Your task to perform on an android device: Open Chrome and go to settings Image 0: 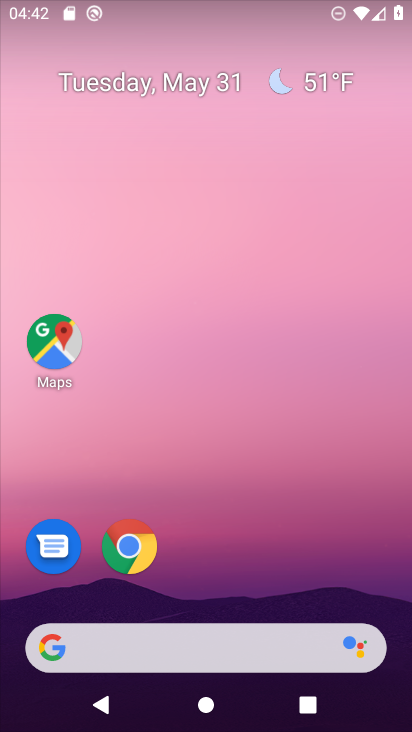
Step 0: click (129, 551)
Your task to perform on an android device: Open Chrome and go to settings Image 1: 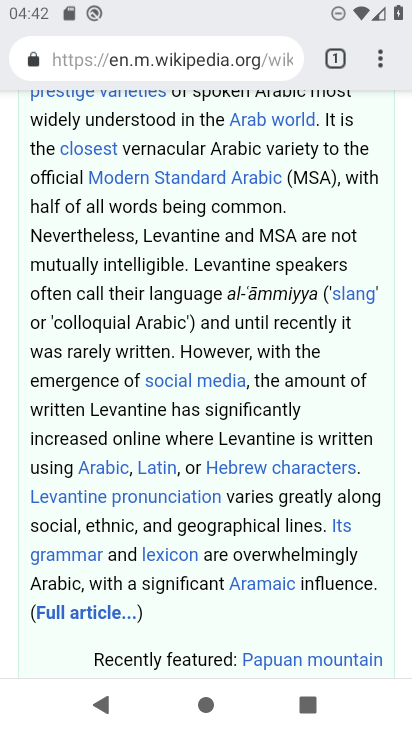
Step 1: click (385, 58)
Your task to perform on an android device: Open Chrome and go to settings Image 2: 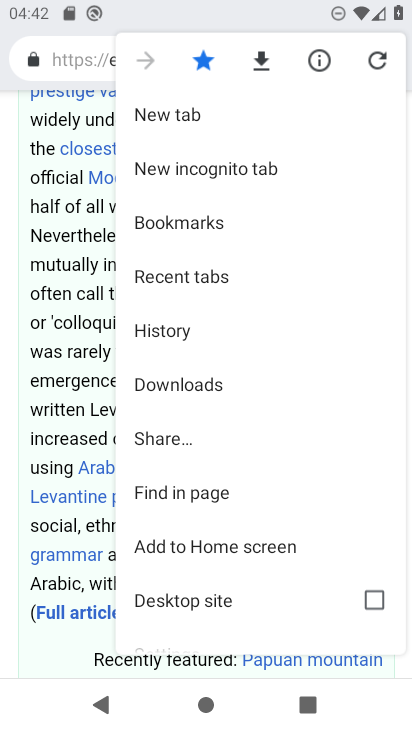
Step 2: drag from (208, 583) to (183, 365)
Your task to perform on an android device: Open Chrome and go to settings Image 3: 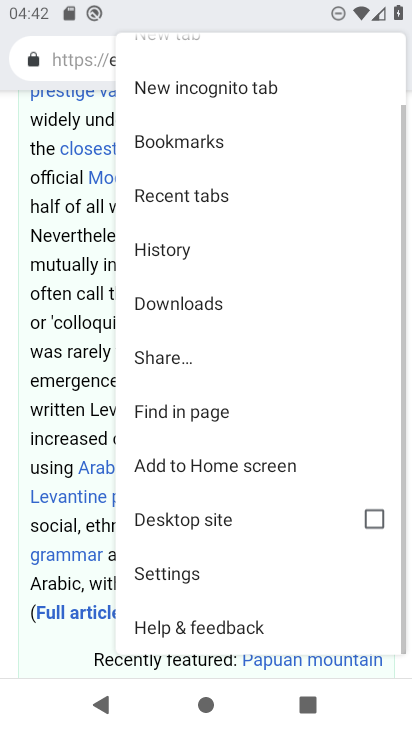
Step 3: click (175, 593)
Your task to perform on an android device: Open Chrome and go to settings Image 4: 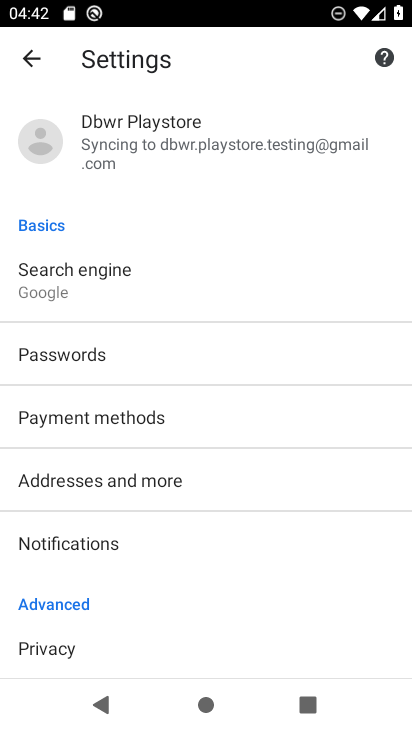
Step 4: task complete